Your task to perform on an android device: Open the calendar and show me this week's events? Image 0: 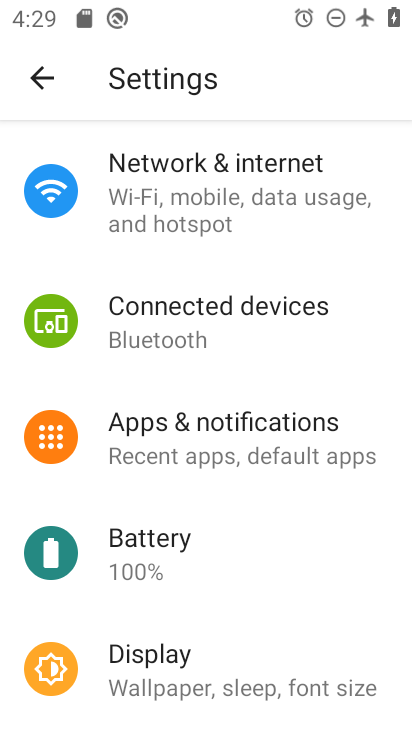
Step 0: press back button
Your task to perform on an android device: Open the calendar and show me this week's events? Image 1: 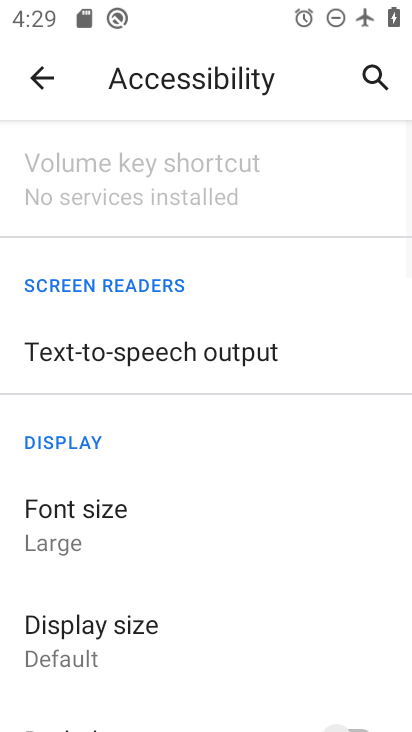
Step 1: press back button
Your task to perform on an android device: Open the calendar and show me this week's events? Image 2: 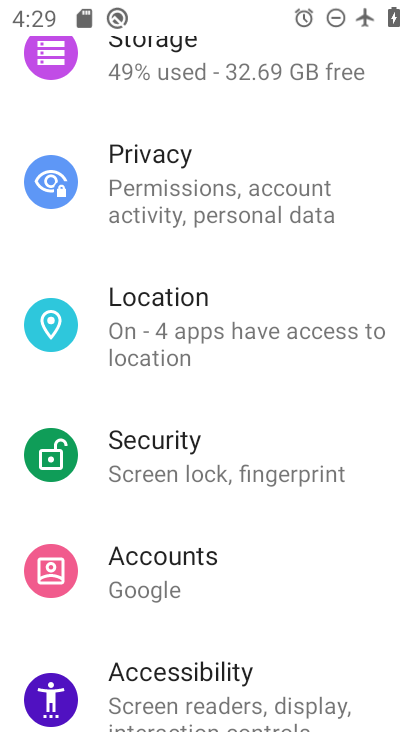
Step 2: press back button
Your task to perform on an android device: Open the calendar and show me this week's events? Image 3: 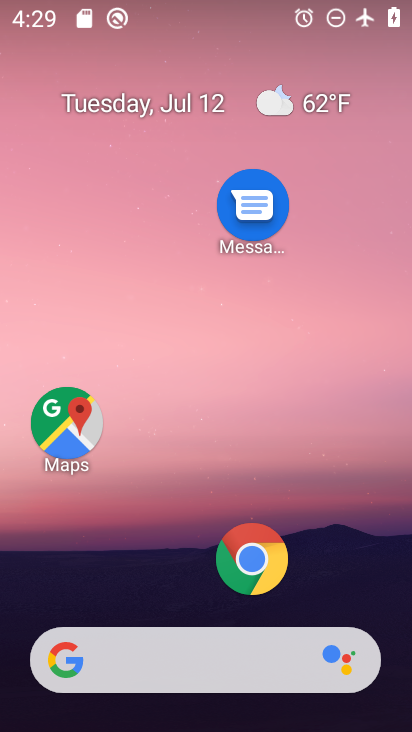
Step 3: drag from (131, 533) to (170, 57)
Your task to perform on an android device: Open the calendar and show me this week's events? Image 4: 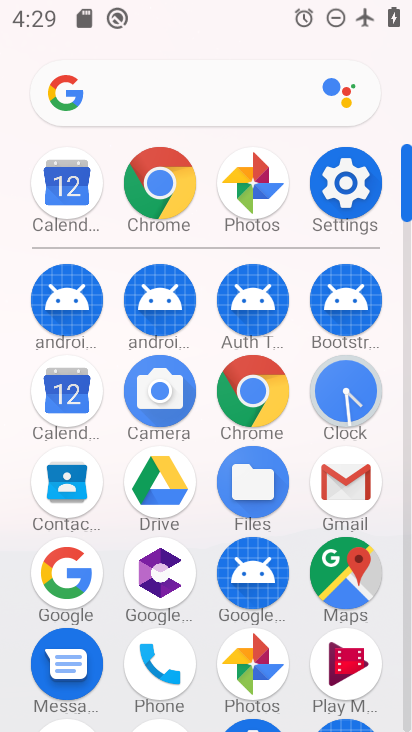
Step 4: click (62, 379)
Your task to perform on an android device: Open the calendar and show me this week's events? Image 5: 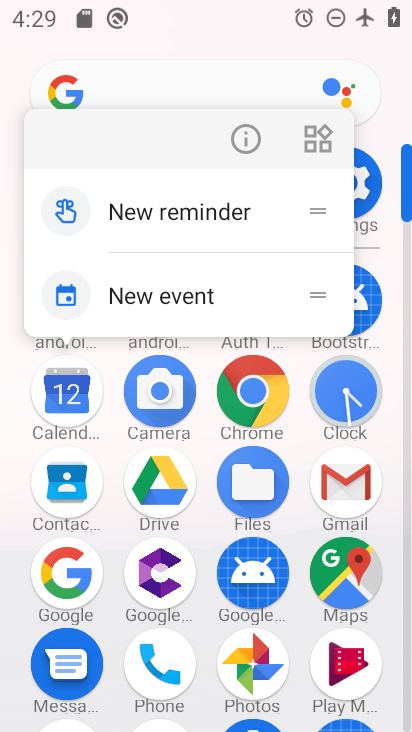
Step 5: click (66, 406)
Your task to perform on an android device: Open the calendar and show me this week's events? Image 6: 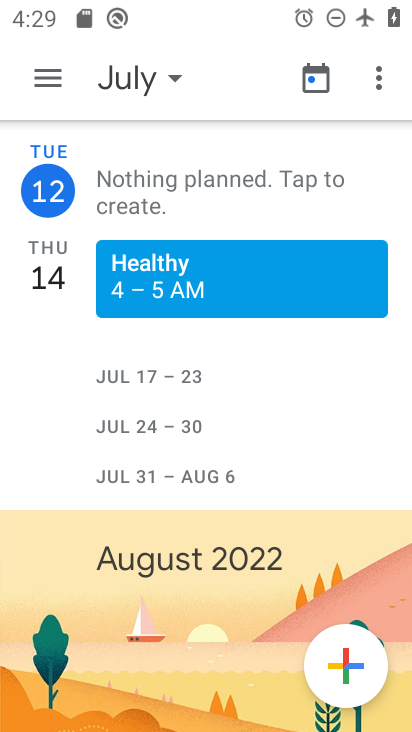
Step 6: click (139, 90)
Your task to perform on an android device: Open the calendar and show me this week's events? Image 7: 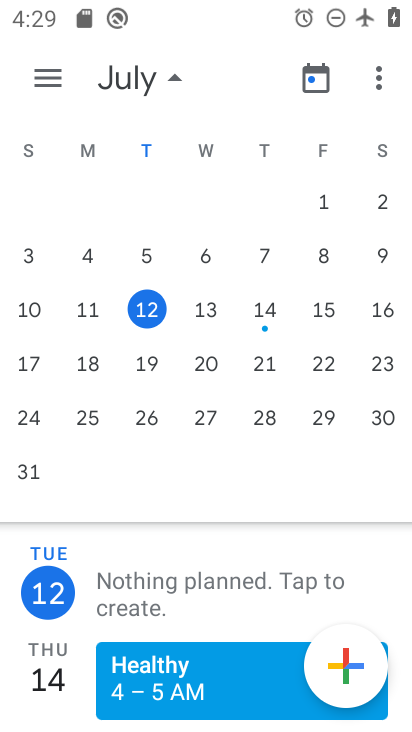
Step 7: click (79, 301)
Your task to perform on an android device: Open the calendar and show me this week's events? Image 8: 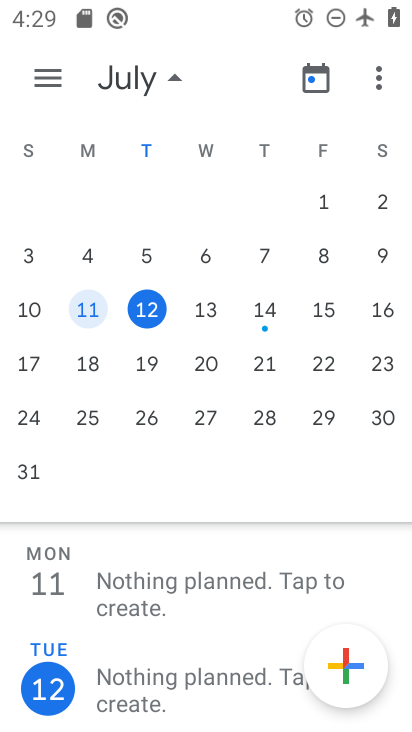
Step 8: task complete